Your task to perform on an android device: Open privacy settings Image 0: 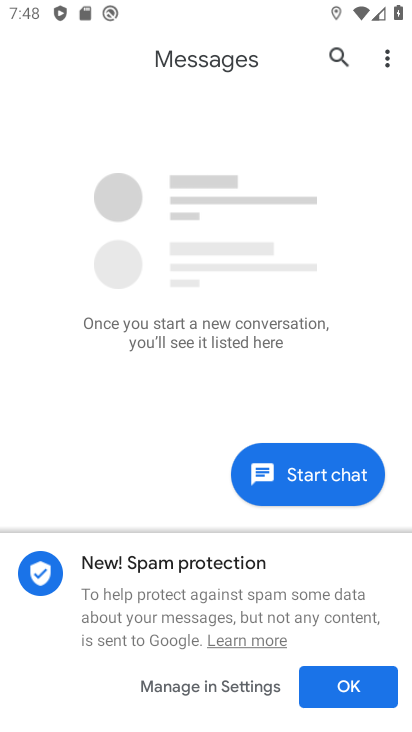
Step 0: press back button
Your task to perform on an android device: Open privacy settings Image 1: 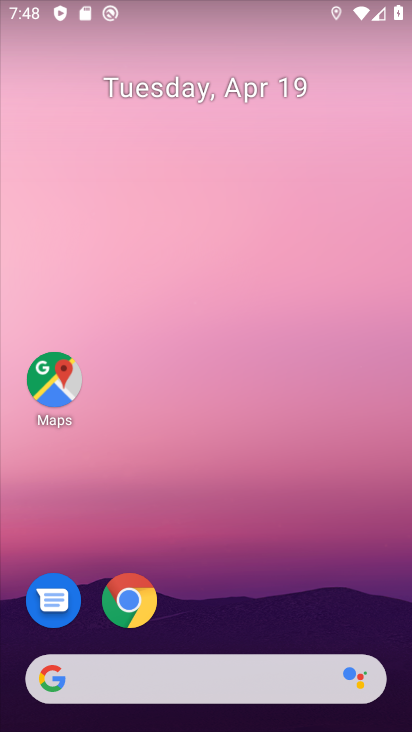
Step 1: drag from (212, 557) to (227, 191)
Your task to perform on an android device: Open privacy settings Image 2: 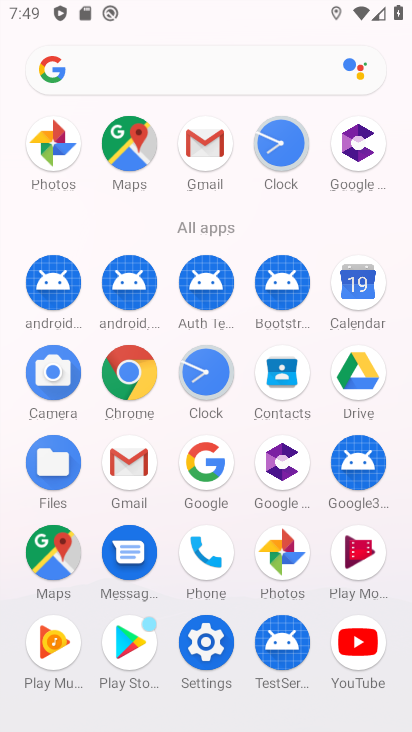
Step 2: click (211, 645)
Your task to perform on an android device: Open privacy settings Image 3: 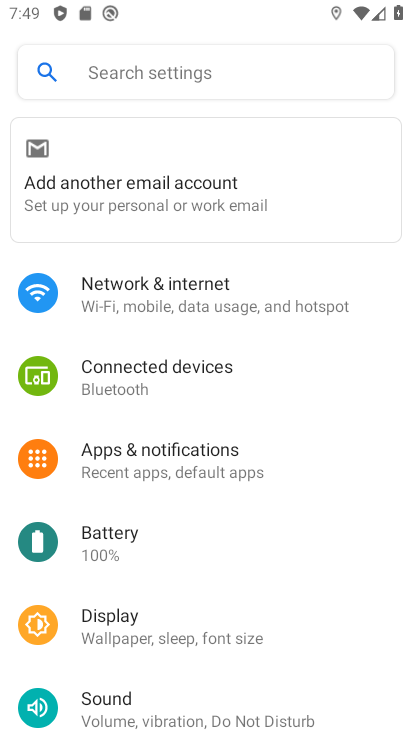
Step 3: drag from (142, 654) to (187, 284)
Your task to perform on an android device: Open privacy settings Image 4: 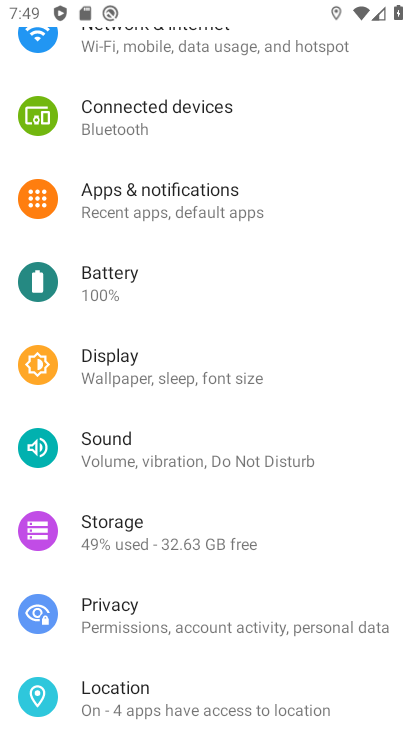
Step 4: click (121, 610)
Your task to perform on an android device: Open privacy settings Image 5: 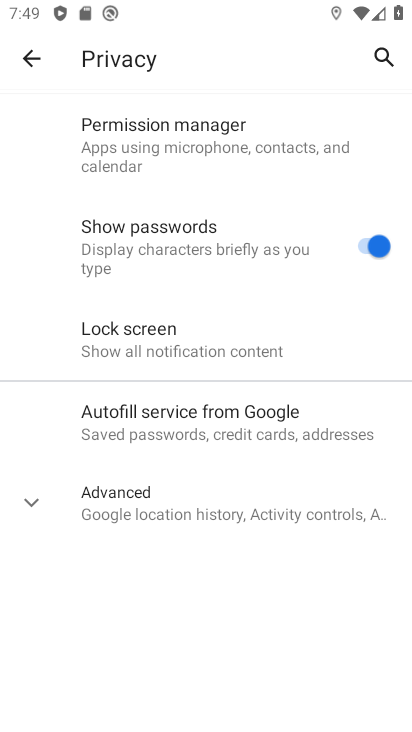
Step 5: task complete